Your task to perform on an android device: Go to Google maps Image 0: 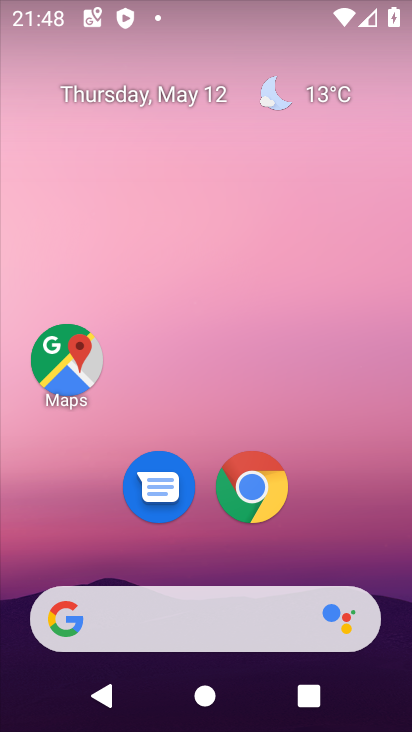
Step 0: click (50, 382)
Your task to perform on an android device: Go to Google maps Image 1: 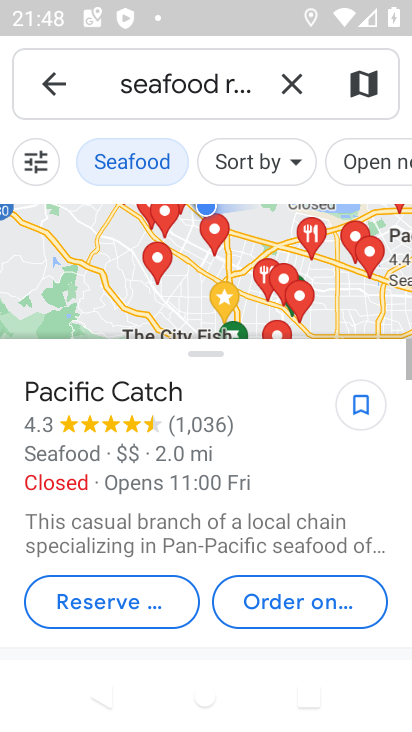
Step 1: task complete